Your task to perform on an android device: toggle javascript in the chrome app Image 0: 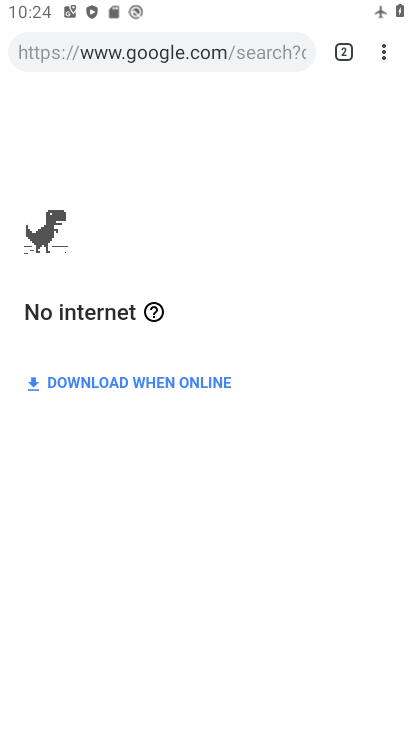
Step 0: press home button
Your task to perform on an android device: toggle javascript in the chrome app Image 1: 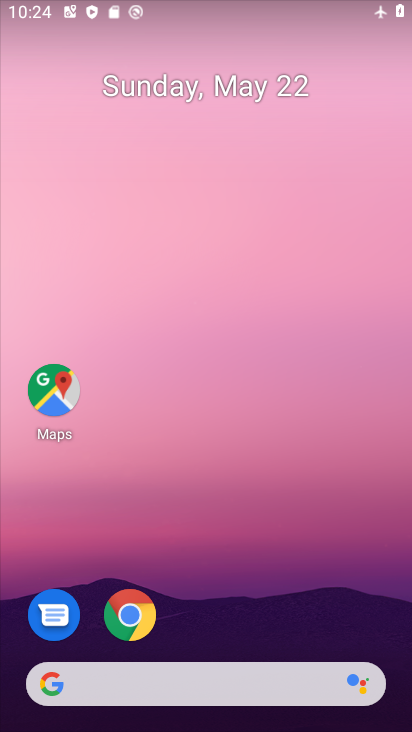
Step 1: click (134, 613)
Your task to perform on an android device: toggle javascript in the chrome app Image 2: 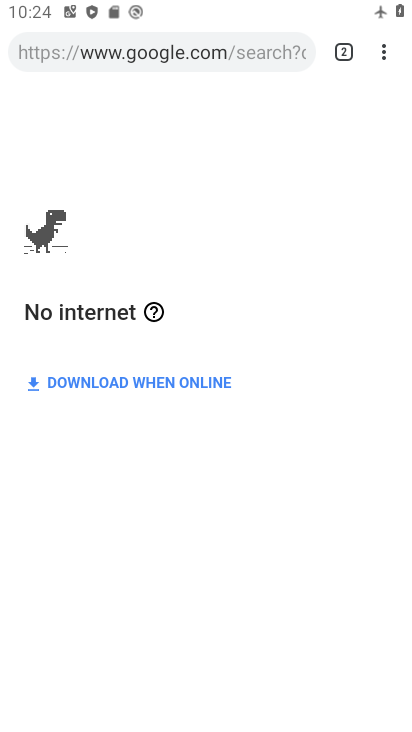
Step 2: click (386, 41)
Your task to perform on an android device: toggle javascript in the chrome app Image 3: 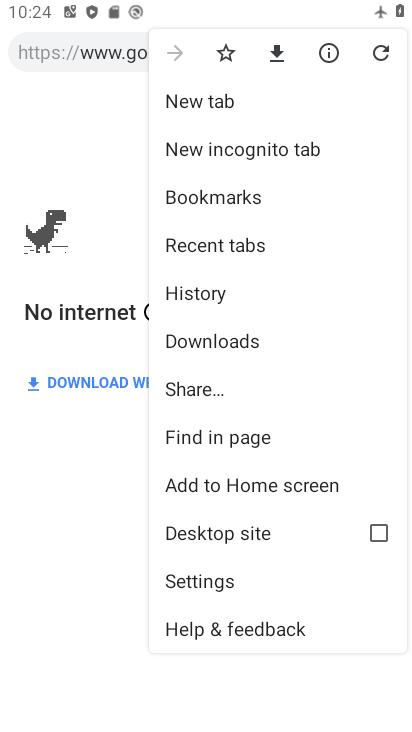
Step 3: drag from (231, 568) to (252, 154)
Your task to perform on an android device: toggle javascript in the chrome app Image 4: 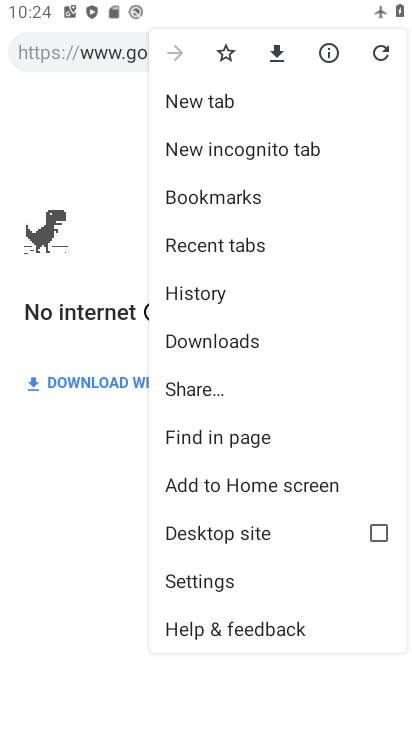
Step 4: click (225, 561)
Your task to perform on an android device: toggle javascript in the chrome app Image 5: 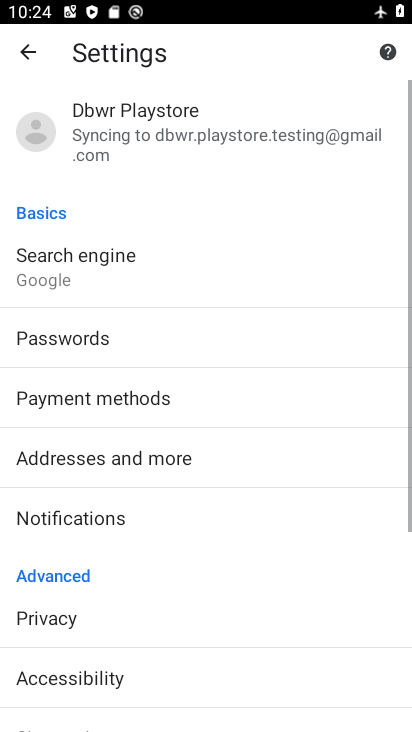
Step 5: drag from (217, 581) to (259, 56)
Your task to perform on an android device: toggle javascript in the chrome app Image 6: 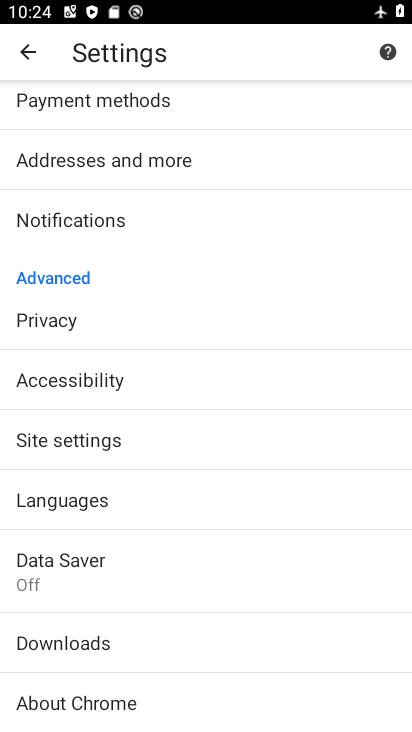
Step 6: click (110, 431)
Your task to perform on an android device: toggle javascript in the chrome app Image 7: 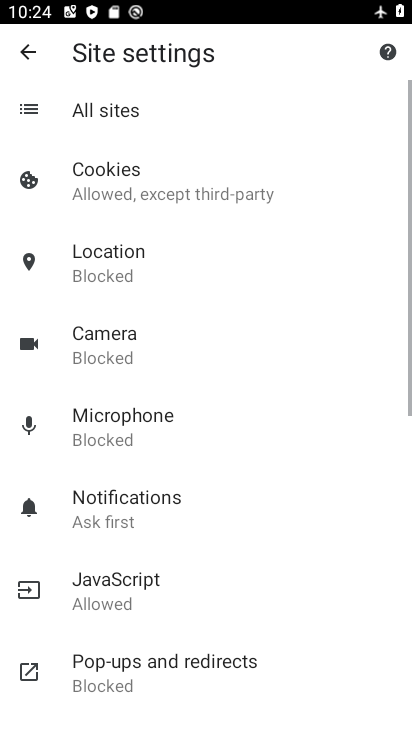
Step 7: drag from (151, 641) to (239, 210)
Your task to perform on an android device: toggle javascript in the chrome app Image 8: 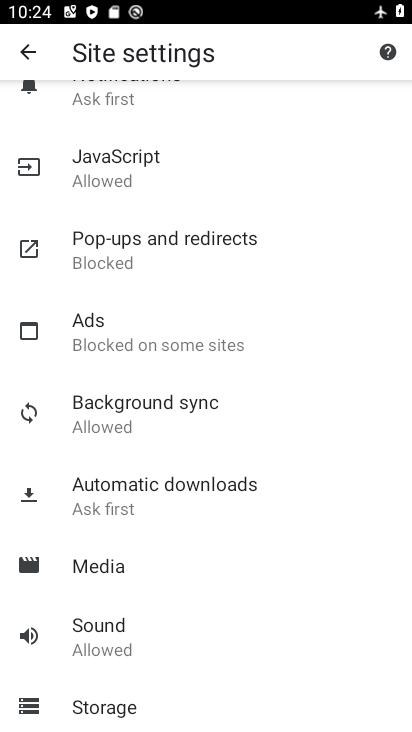
Step 8: click (91, 179)
Your task to perform on an android device: toggle javascript in the chrome app Image 9: 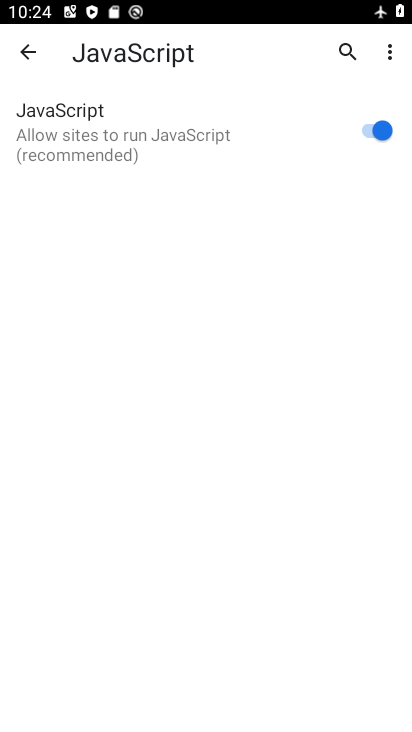
Step 9: click (381, 130)
Your task to perform on an android device: toggle javascript in the chrome app Image 10: 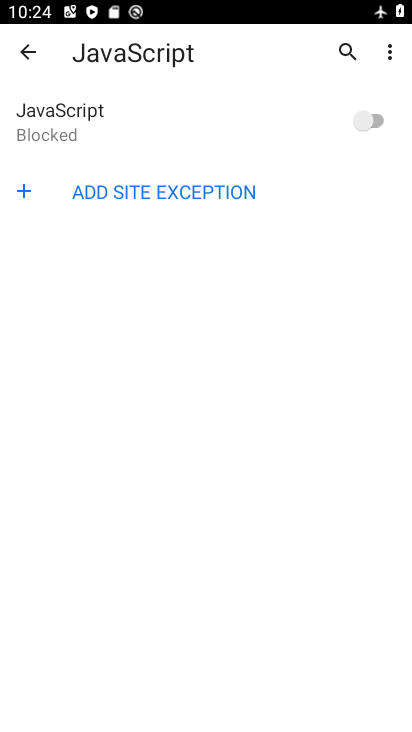
Step 10: task complete